Your task to perform on an android device: toggle javascript in the chrome app Image 0: 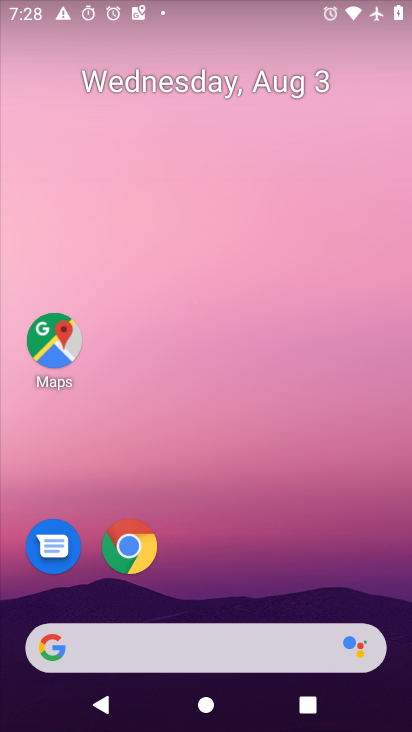
Step 0: press home button
Your task to perform on an android device: toggle javascript in the chrome app Image 1: 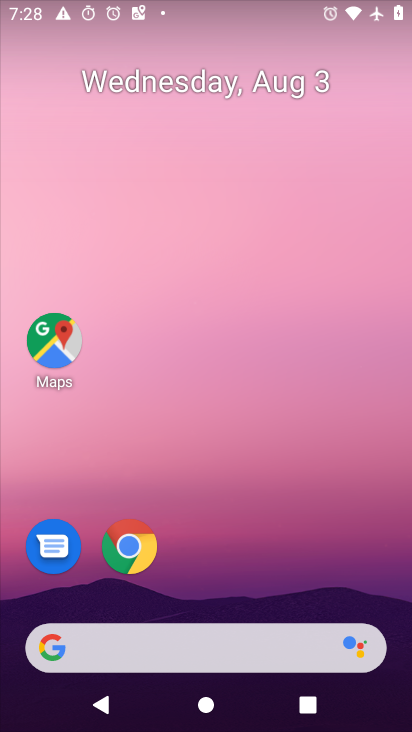
Step 1: click (134, 555)
Your task to perform on an android device: toggle javascript in the chrome app Image 2: 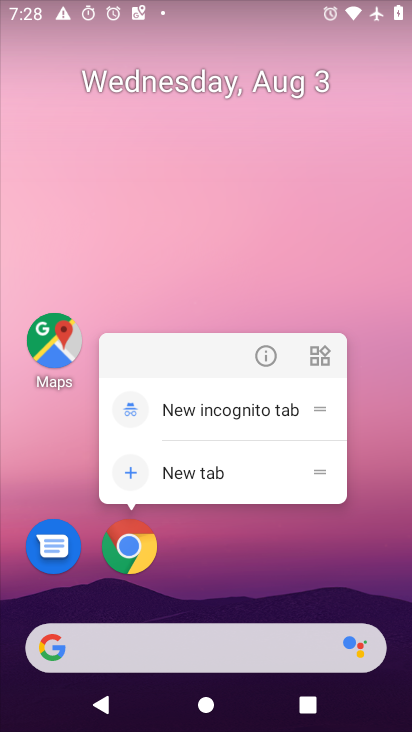
Step 2: click (134, 555)
Your task to perform on an android device: toggle javascript in the chrome app Image 3: 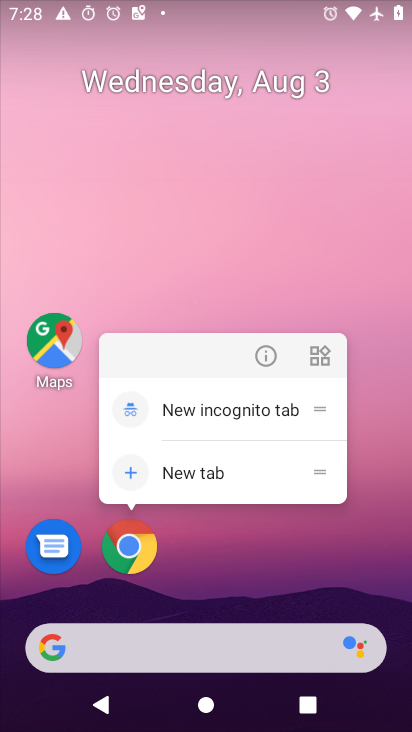
Step 3: click (135, 561)
Your task to perform on an android device: toggle javascript in the chrome app Image 4: 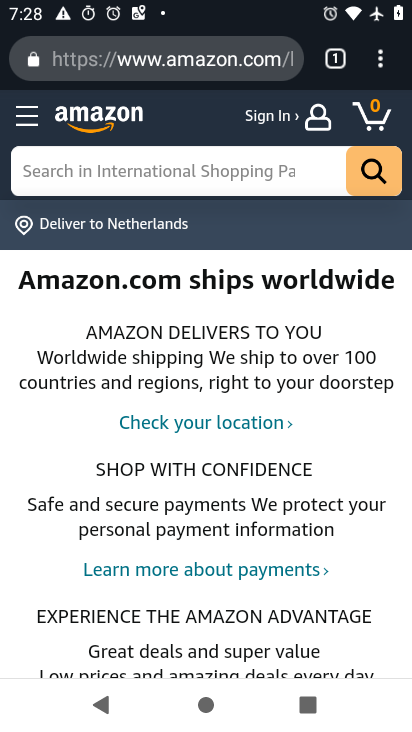
Step 4: drag from (381, 62) to (210, 581)
Your task to perform on an android device: toggle javascript in the chrome app Image 5: 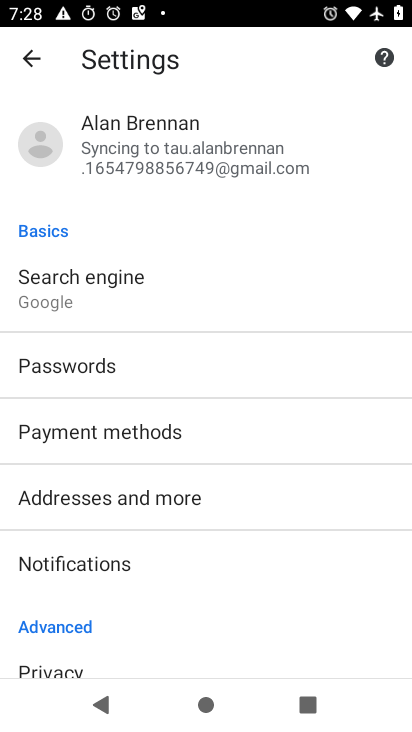
Step 5: drag from (258, 628) to (250, 217)
Your task to perform on an android device: toggle javascript in the chrome app Image 6: 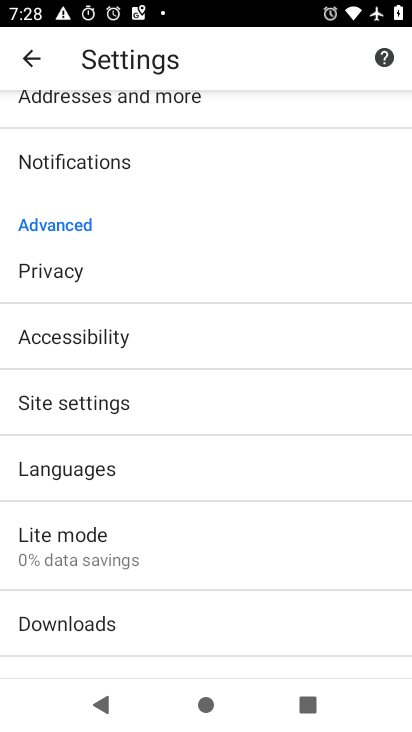
Step 6: click (77, 407)
Your task to perform on an android device: toggle javascript in the chrome app Image 7: 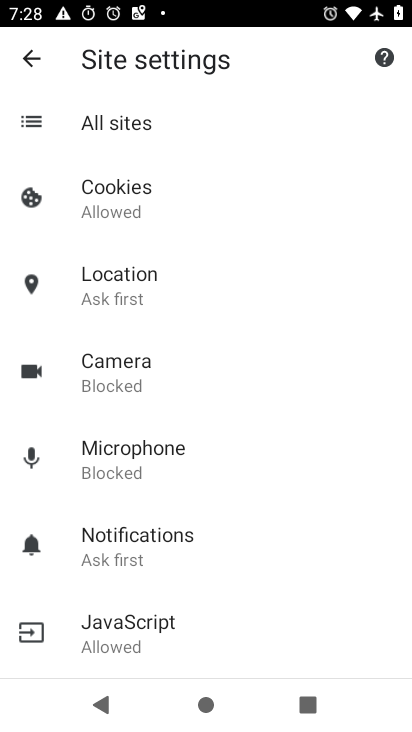
Step 7: click (131, 631)
Your task to perform on an android device: toggle javascript in the chrome app Image 8: 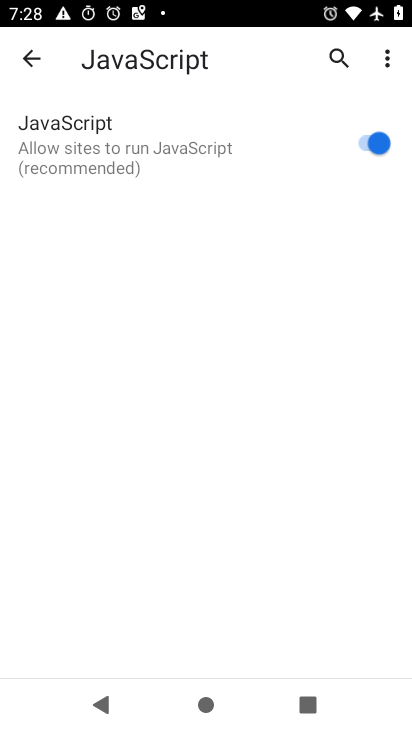
Step 8: click (375, 140)
Your task to perform on an android device: toggle javascript in the chrome app Image 9: 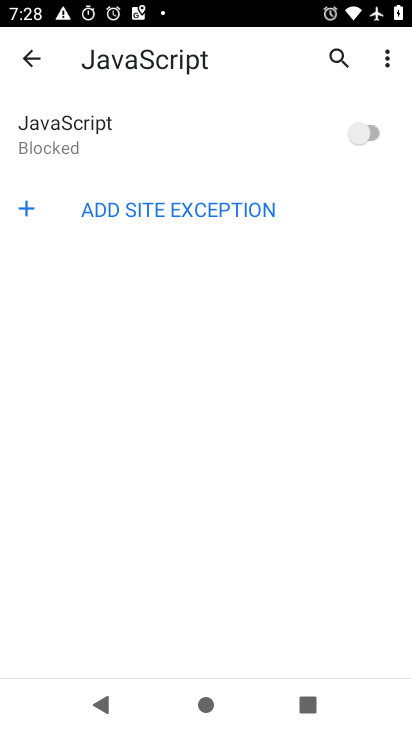
Step 9: task complete